Your task to perform on an android device: turn on the 24-hour format for clock Image 0: 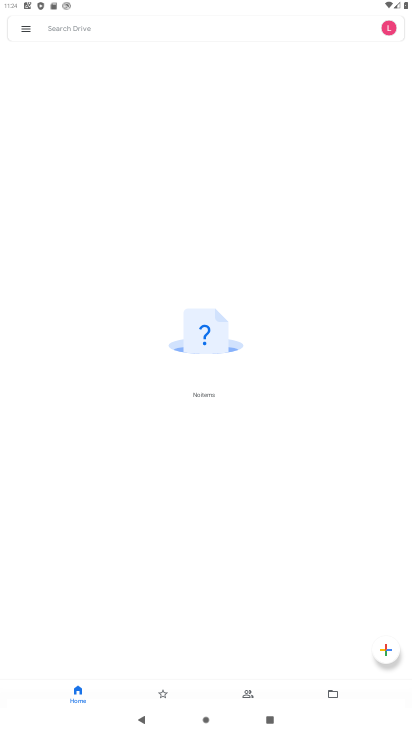
Step 0: task complete